Your task to perform on an android device: Do I have any events tomorrow? Image 0: 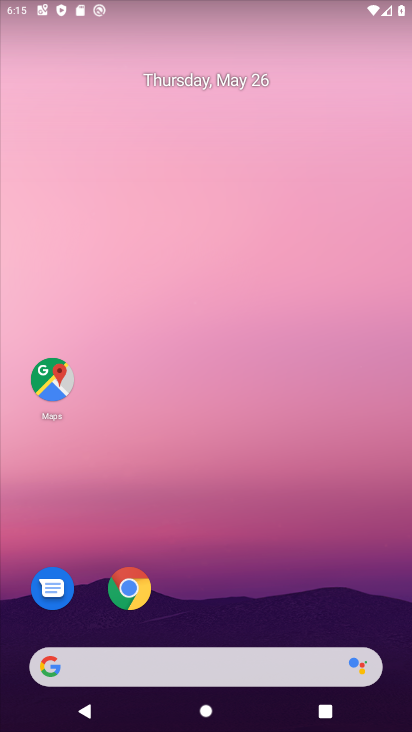
Step 0: drag from (405, 621) to (302, 41)
Your task to perform on an android device: Do I have any events tomorrow? Image 1: 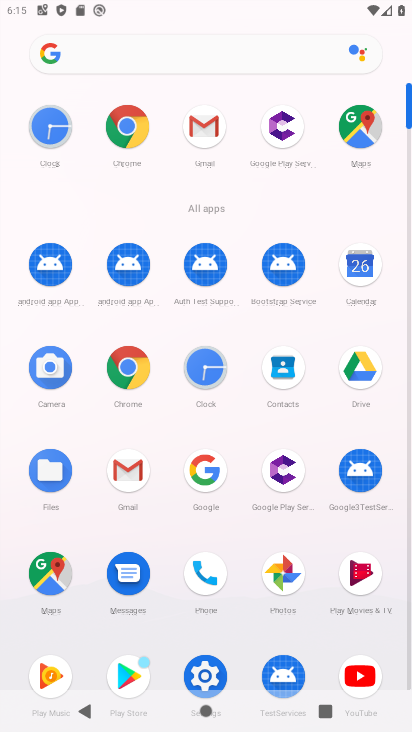
Step 1: click (374, 273)
Your task to perform on an android device: Do I have any events tomorrow? Image 2: 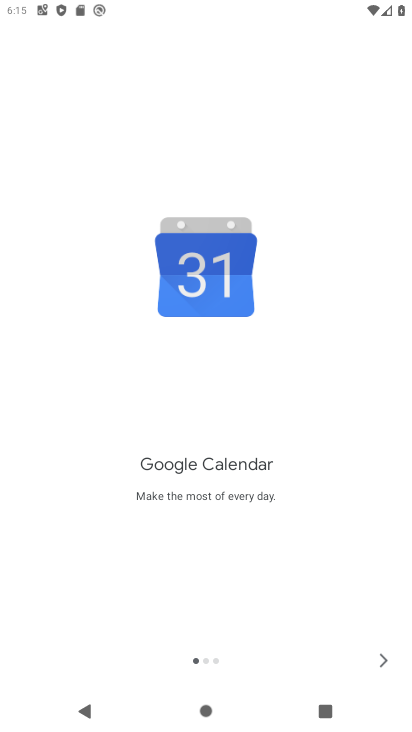
Step 2: click (391, 661)
Your task to perform on an android device: Do I have any events tomorrow? Image 3: 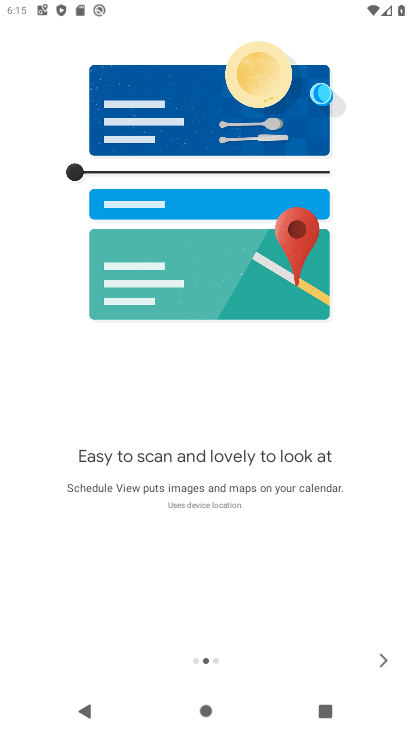
Step 3: click (391, 661)
Your task to perform on an android device: Do I have any events tomorrow? Image 4: 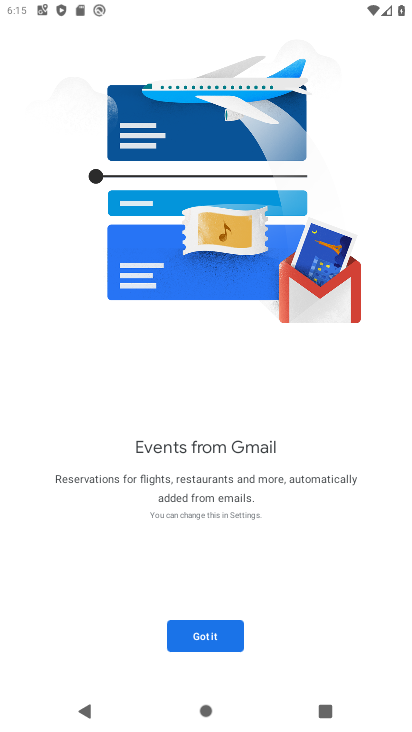
Step 4: click (221, 628)
Your task to perform on an android device: Do I have any events tomorrow? Image 5: 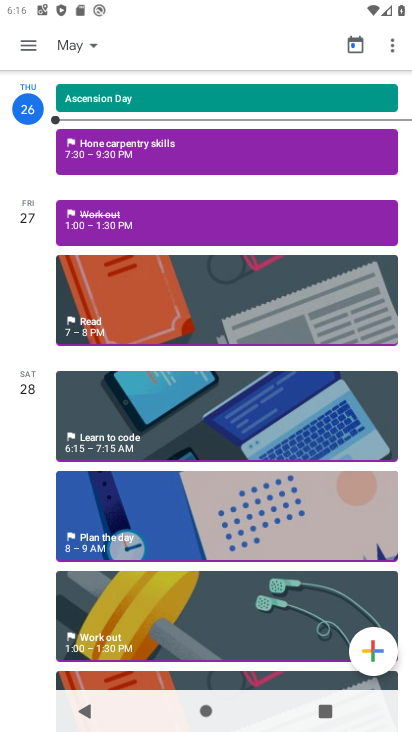
Step 5: click (75, 42)
Your task to perform on an android device: Do I have any events tomorrow? Image 6: 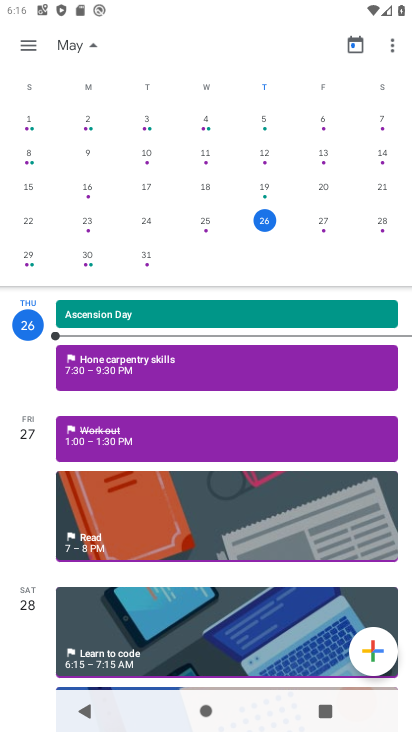
Step 6: click (389, 227)
Your task to perform on an android device: Do I have any events tomorrow? Image 7: 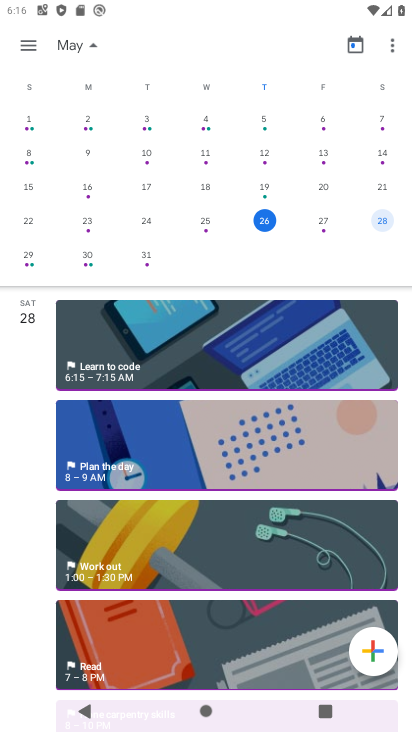
Step 7: click (156, 364)
Your task to perform on an android device: Do I have any events tomorrow? Image 8: 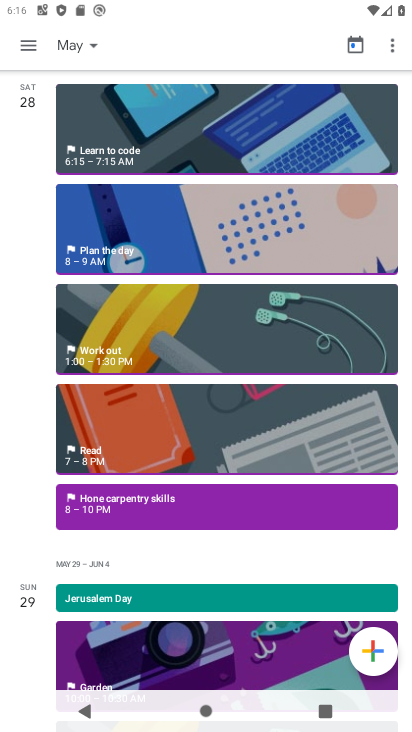
Step 8: click (117, 326)
Your task to perform on an android device: Do I have any events tomorrow? Image 9: 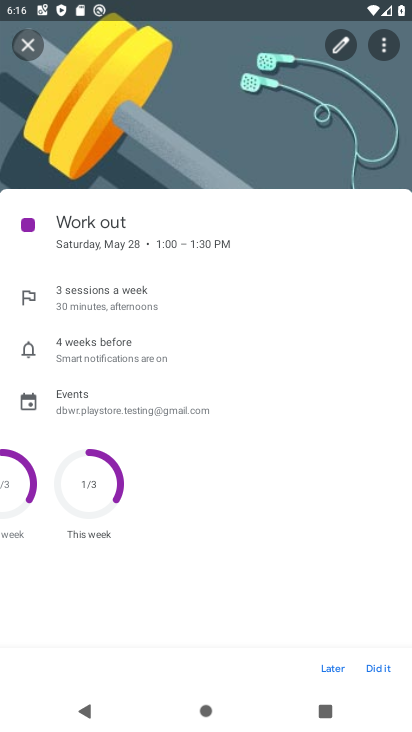
Step 9: task complete